Your task to perform on an android device: Search for razer blade on costco.com, select the first entry, and add it to the cart. Image 0: 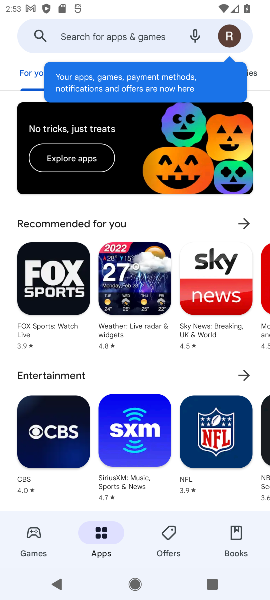
Step 0: press home button
Your task to perform on an android device: Search for razer blade on costco.com, select the first entry, and add it to the cart. Image 1: 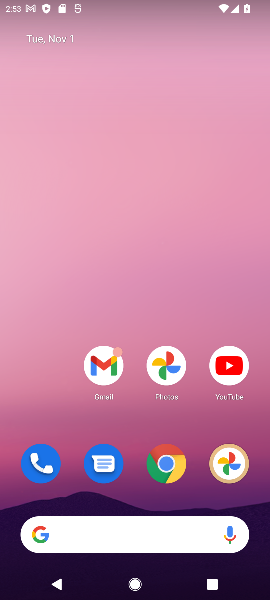
Step 1: drag from (141, 428) to (218, 62)
Your task to perform on an android device: Search for razer blade on costco.com, select the first entry, and add it to the cart. Image 2: 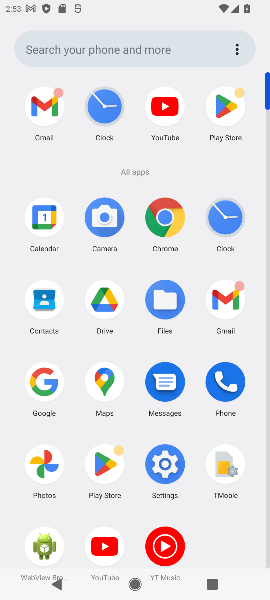
Step 2: click (162, 220)
Your task to perform on an android device: Search for razer blade on costco.com, select the first entry, and add it to the cart. Image 3: 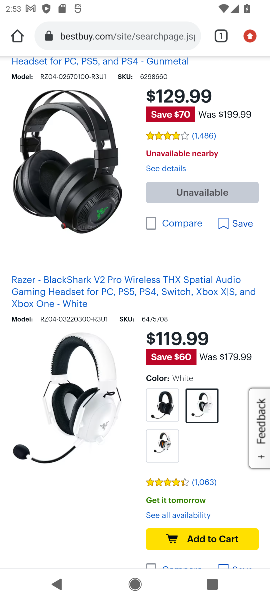
Step 3: click (168, 30)
Your task to perform on an android device: Search for razer blade on costco.com, select the first entry, and add it to the cart. Image 4: 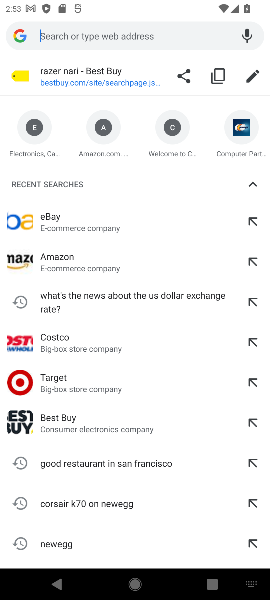
Step 4: type "costco.com"
Your task to perform on an android device: Search for razer blade on costco.com, select the first entry, and add it to the cart. Image 5: 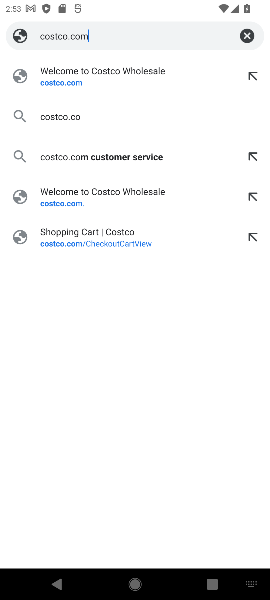
Step 5: press enter
Your task to perform on an android device: Search for razer blade on costco.com, select the first entry, and add it to the cart. Image 6: 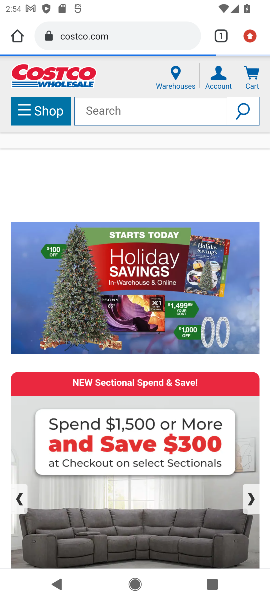
Step 6: drag from (190, 371) to (209, 197)
Your task to perform on an android device: Search for razer blade on costco.com, select the first entry, and add it to the cart. Image 7: 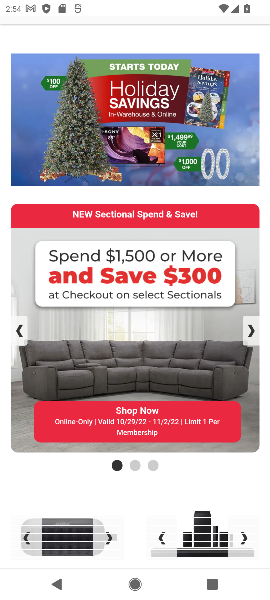
Step 7: drag from (97, 183) to (151, 474)
Your task to perform on an android device: Search for razer blade on costco.com, select the first entry, and add it to the cart. Image 8: 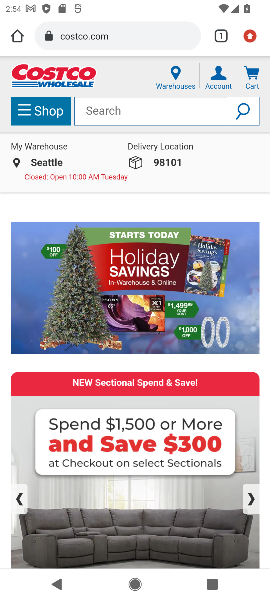
Step 8: click (119, 109)
Your task to perform on an android device: Search for razer blade on costco.com, select the first entry, and add it to the cart. Image 9: 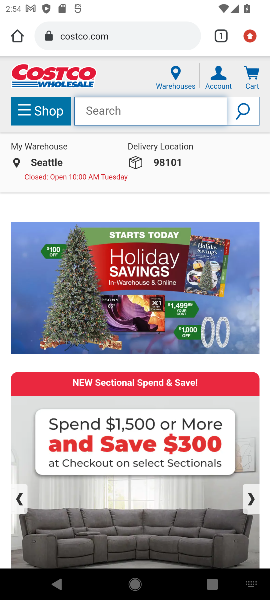
Step 9: type "razer blade"
Your task to perform on an android device: Search for razer blade on costco.com, select the first entry, and add it to the cart. Image 10: 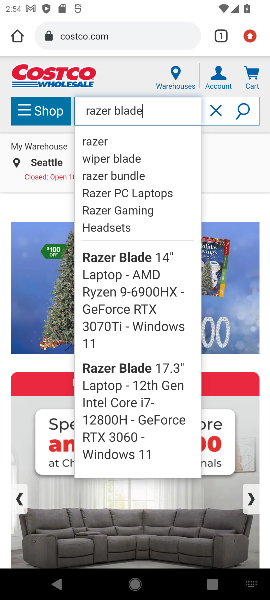
Step 10: press enter
Your task to perform on an android device: Search for razer blade on costco.com, select the first entry, and add it to the cart. Image 11: 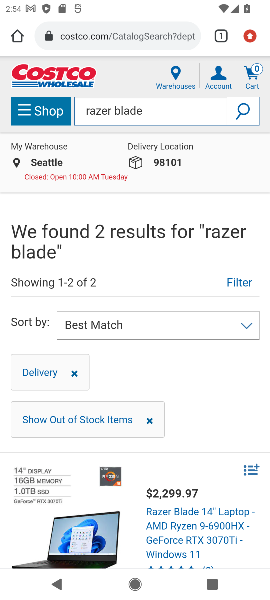
Step 11: drag from (199, 433) to (175, 130)
Your task to perform on an android device: Search for razer blade on costco.com, select the first entry, and add it to the cart. Image 12: 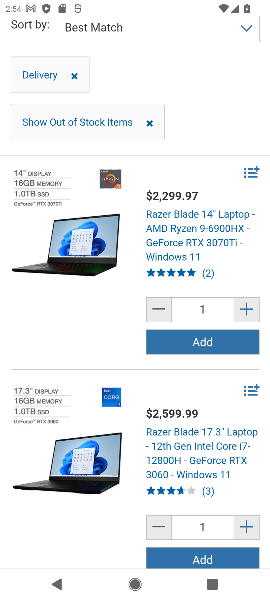
Step 12: click (211, 347)
Your task to perform on an android device: Search for razer blade on costco.com, select the first entry, and add it to the cart. Image 13: 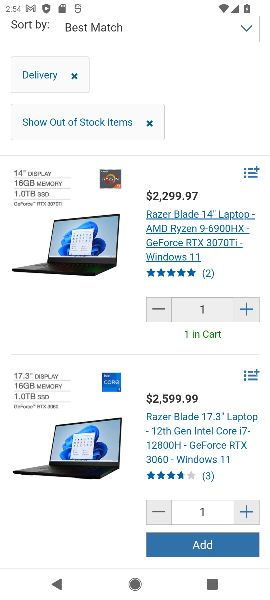
Step 13: task complete